Your task to perform on an android device: open a bookmark in the chrome app Image 0: 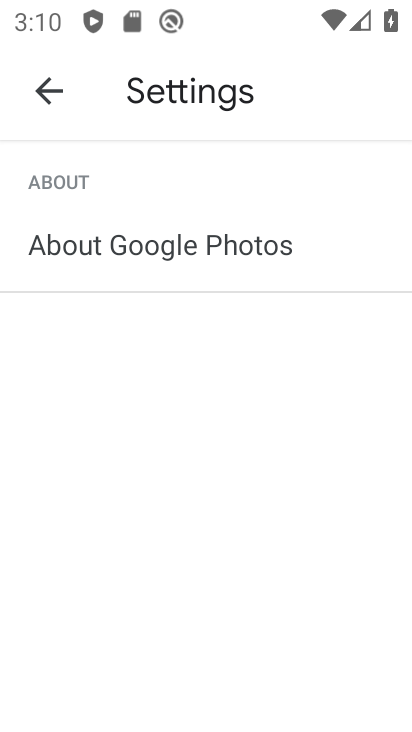
Step 0: press home button
Your task to perform on an android device: open a bookmark in the chrome app Image 1: 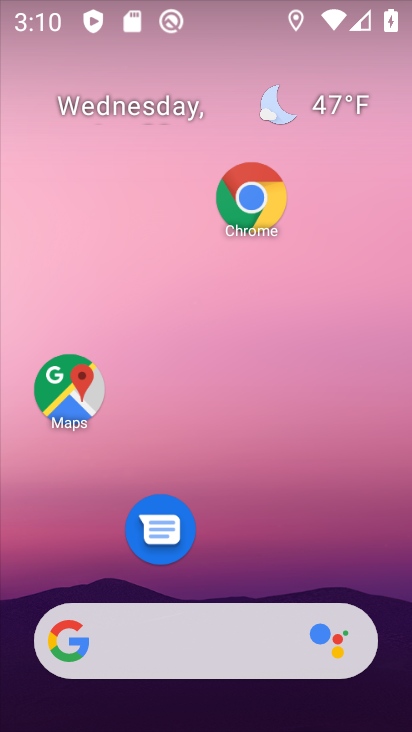
Step 1: click (256, 198)
Your task to perform on an android device: open a bookmark in the chrome app Image 2: 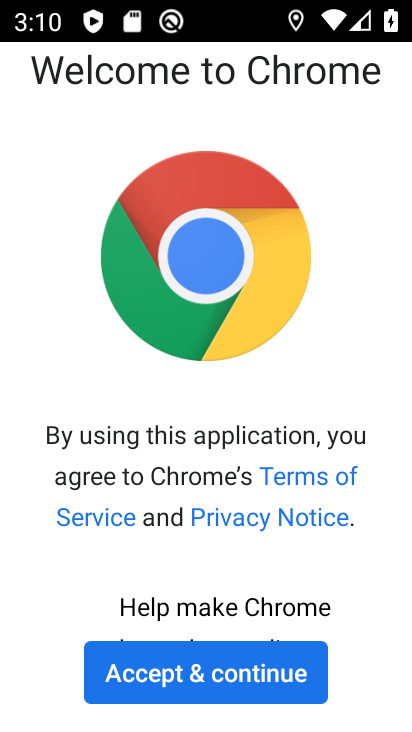
Step 2: click (175, 674)
Your task to perform on an android device: open a bookmark in the chrome app Image 3: 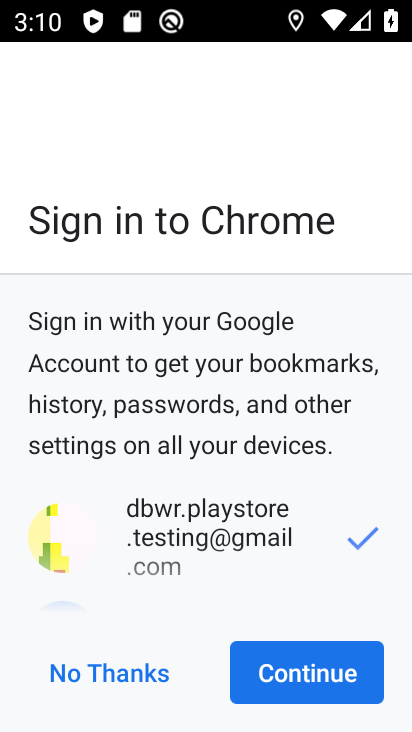
Step 3: click (326, 673)
Your task to perform on an android device: open a bookmark in the chrome app Image 4: 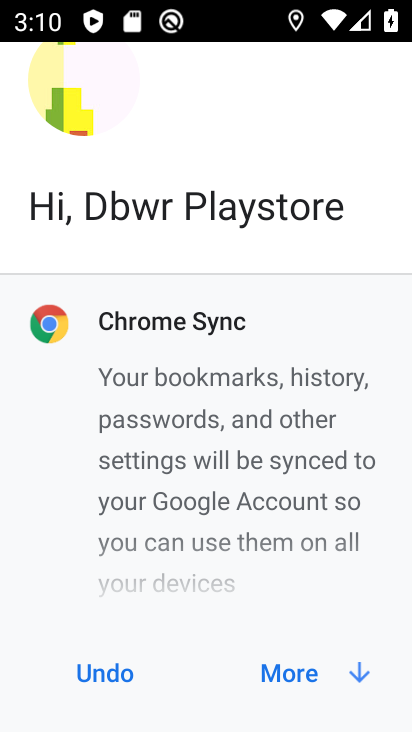
Step 4: click (335, 673)
Your task to perform on an android device: open a bookmark in the chrome app Image 5: 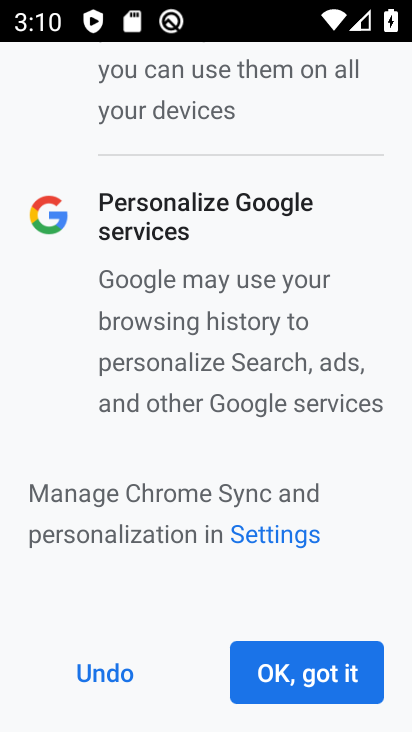
Step 5: click (332, 671)
Your task to perform on an android device: open a bookmark in the chrome app Image 6: 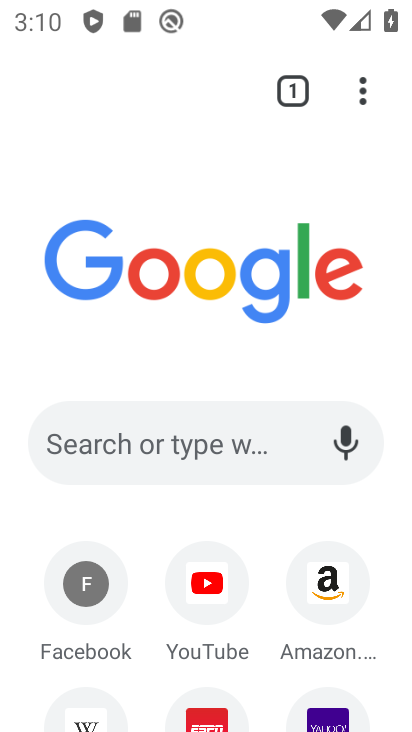
Step 6: click (362, 91)
Your task to perform on an android device: open a bookmark in the chrome app Image 7: 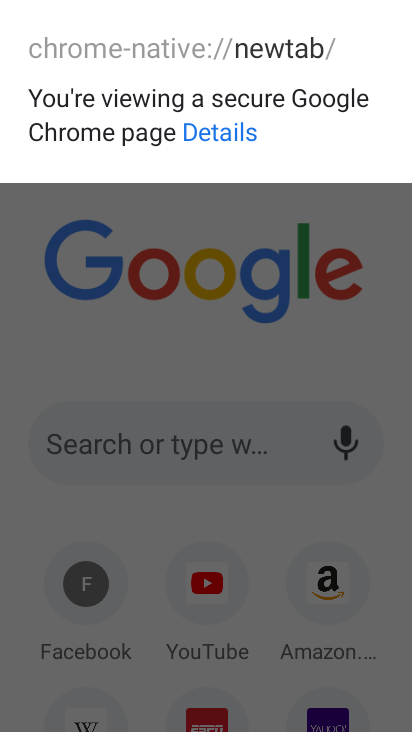
Step 7: click (343, 225)
Your task to perform on an android device: open a bookmark in the chrome app Image 8: 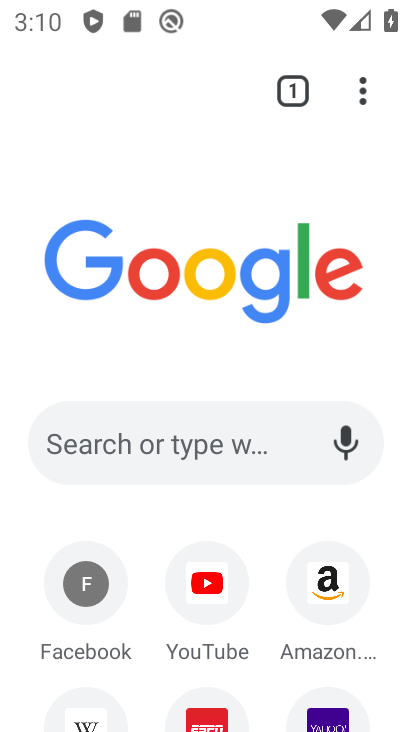
Step 8: click (356, 84)
Your task to perform on an android device: open a bookmark in the chrome app Image 9: 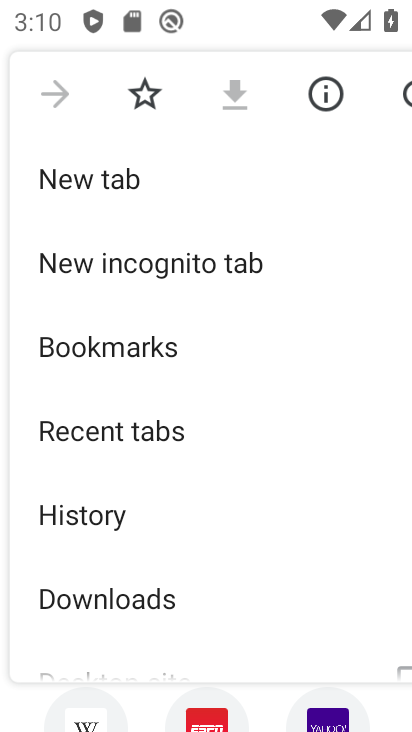
Step 9: click (129, 333)
Your task to perform on an android device: open a bookmark in the chrome app Image 10: 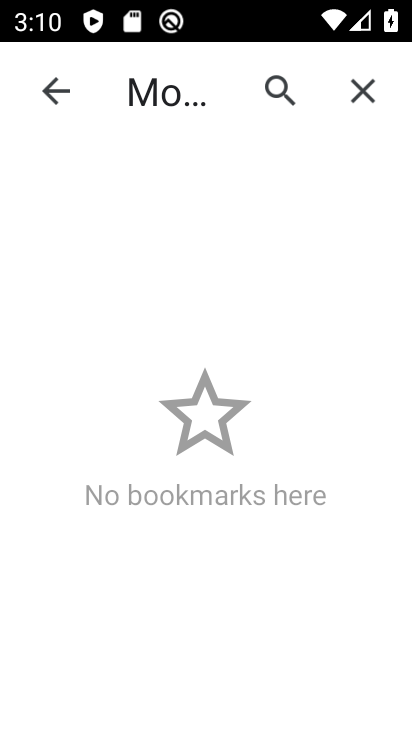
Step 10: task complete